Your task to perform on an android device: turn on priority inbox in the gmail app Image 0: 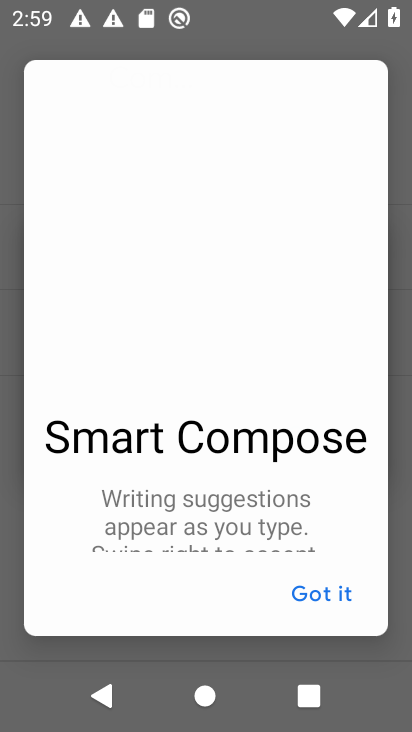
Step 0: press home button
Your task to perform on an android device: turn on priority inbox in the gmail app Image 1: 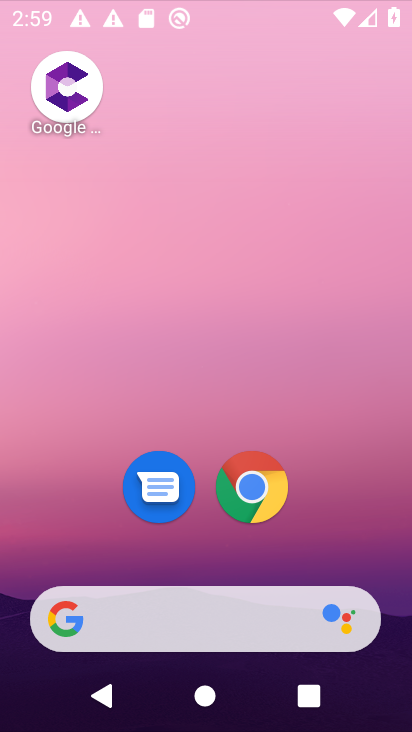
Step 1: drag from (213, 587) to (240, 212)
Your task to perform on an android device: turn on priority inbox in the gmail app Image 2: 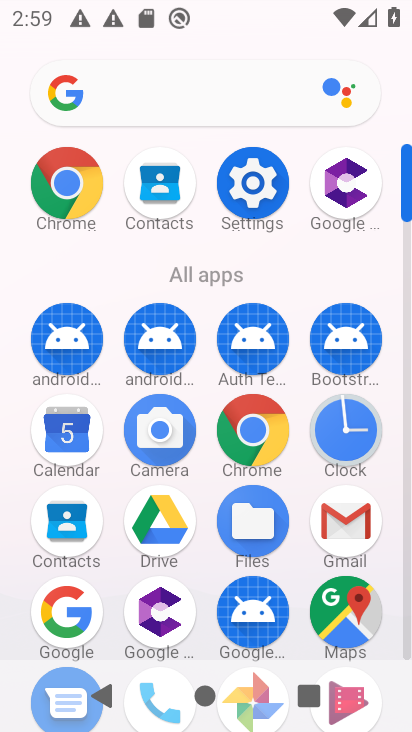
Step 2: click (364, 535)
Your task to perform on an android device: turn on priority inbox in the gmail app Image 3: 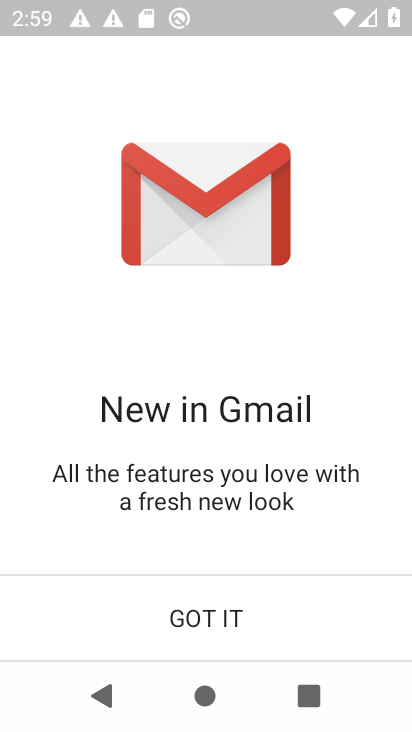
Step 3: click (202, 611)
Your task to perform on an android device: turn on priority inbox in the gmail app Image 4: 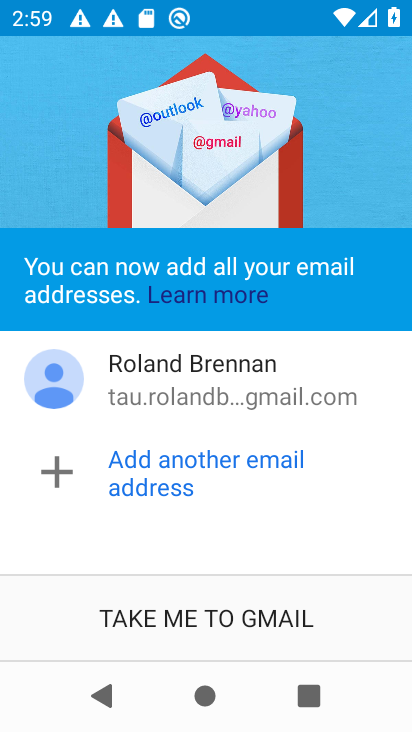
Step 4: click (202, 608)
Your task to perform on an android device: turn on priority inbox in the gmail app Image 5: 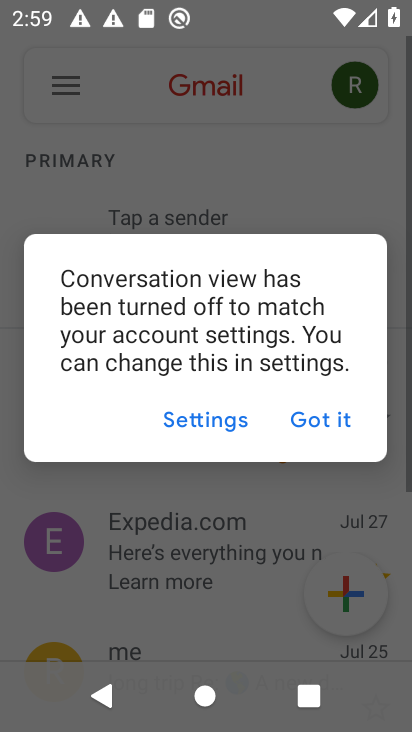
Step 5: click (316, 415)
Your task to perform on an android device: turn on priority inbox in the gmail app Image 6: 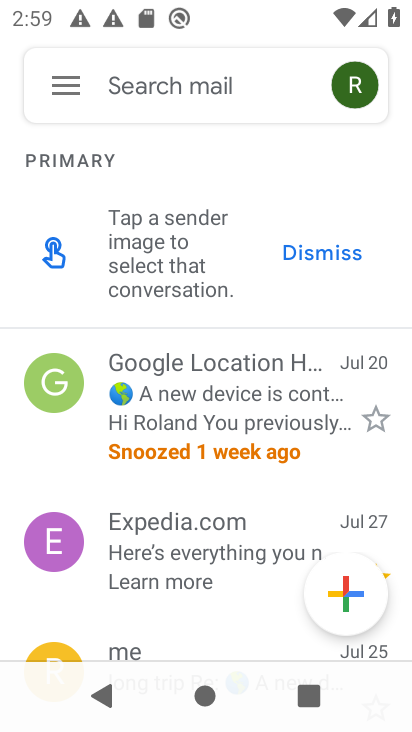
Step 6: click (75, 78)
Your task to perform on an android device: turn on priority inbox in the gmail app Image 7: 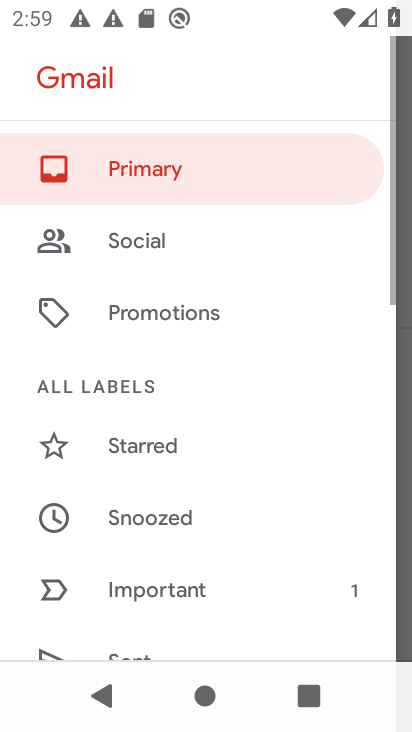
Step 7: drag from (238, 626) to (256, 266)
Your task to perform on an android device: turn on priority inbox in the gmail app Image 8: 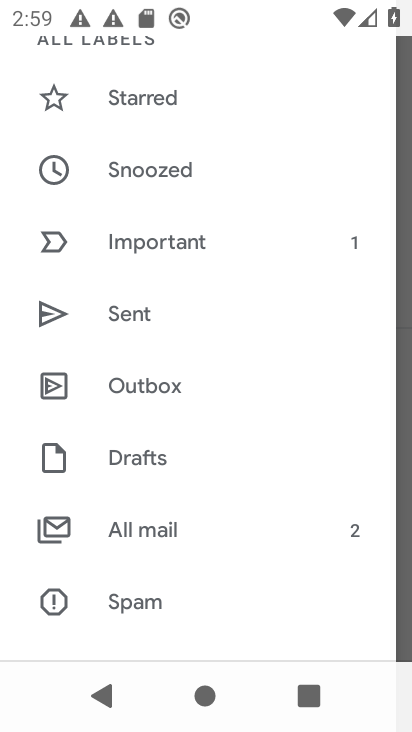
Step 8: drag from (206, 573) to (240, 239)
Your task to perform on an android device: turn on priority inbox in the gmail app Image 9: 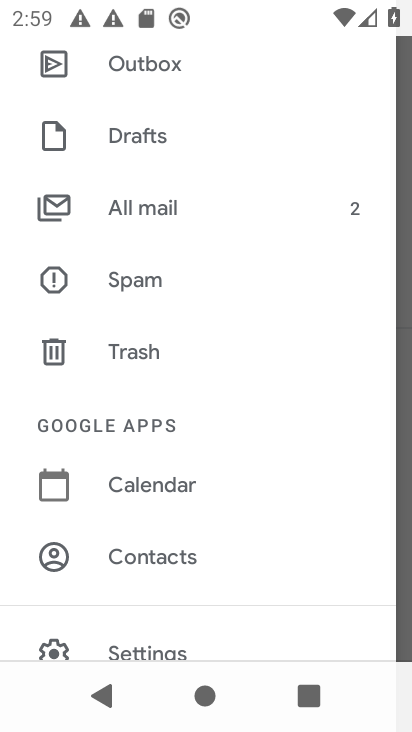
Step 9: drag from (166, 624) to (211, 334)
Your task to perform on an android device: turn on priority inbox in the gmail app Image 10: 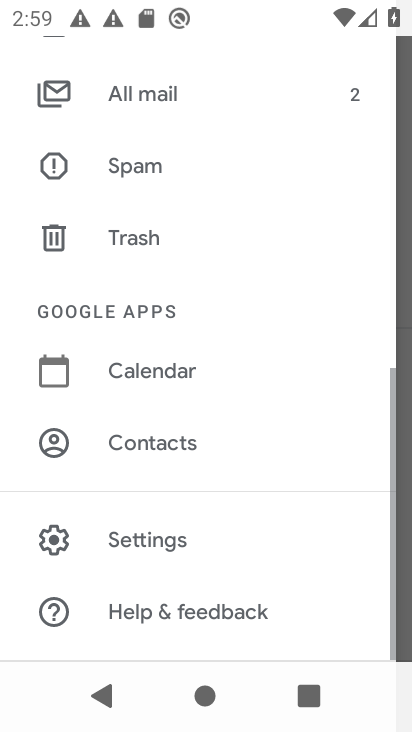
Step 10: click (158, 523)
Your task to perform on an android device: turn on priority inbox in the gmail app Image 11: 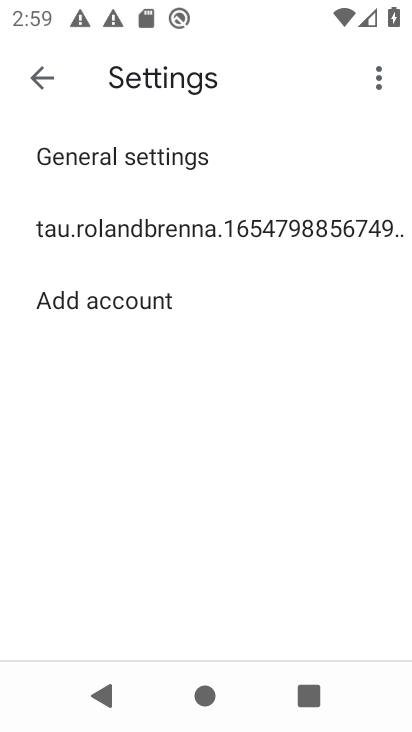
Step 11: click (129, 215)
Your task to perform on an android device: turn on priority inbox in the gmail app Image 12: 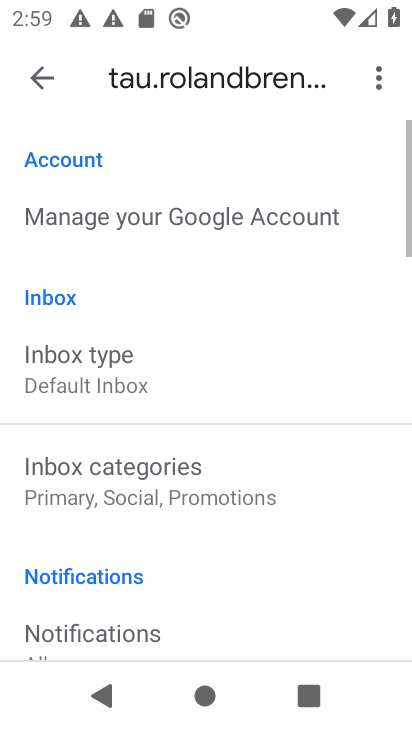
Step 12: click (125, 376)
Your task to perform on an android device: turn on priority inbox in the gmail app Image 13: 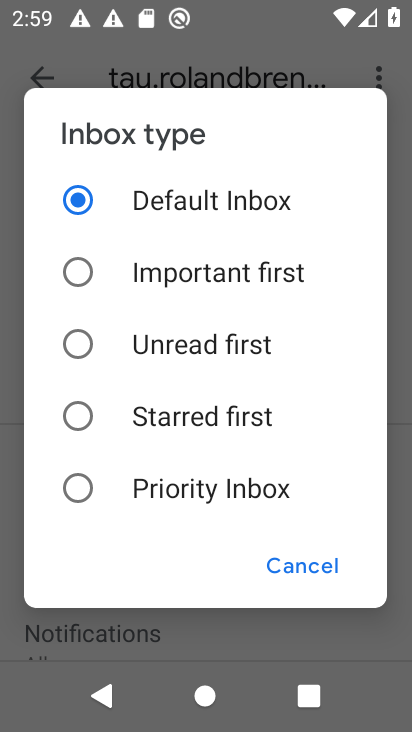
Step 13: click (166, 496)
Your task to perform on an android device: turn on priority inbox in the gmail app Image 14: 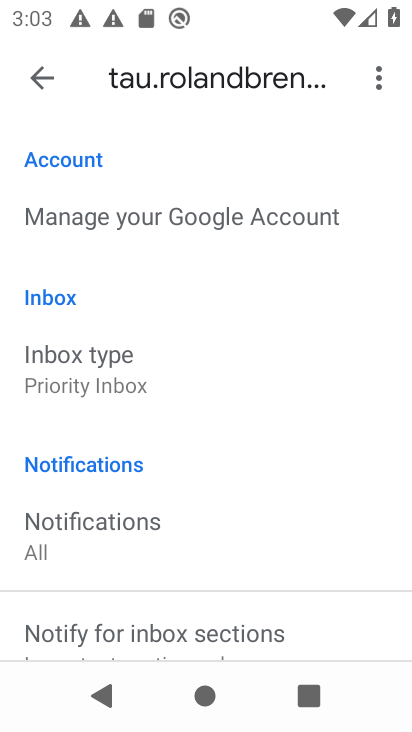
Step 14: click (117, 380)
Your task to perform on an android device: turn on priority inbox in the gmail app Image 15: 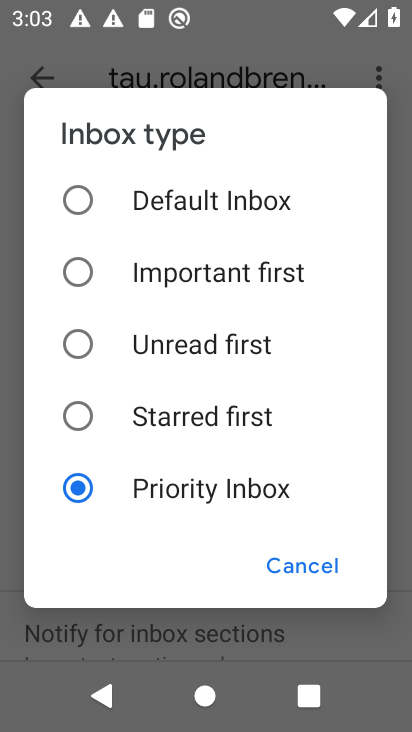
Step 15: task complete